Your task to perform on an android device: Open Google Chrome Image 0: 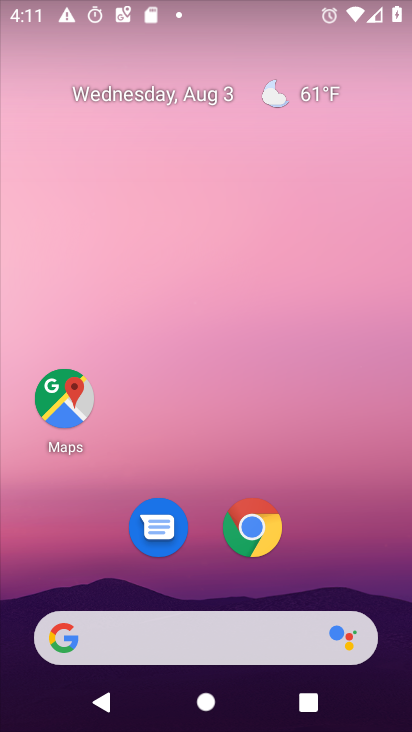
Step 0: drag from (359, 549) to (377, 91)
Your task to perform on an android device: Open Google Chrome Image 1: 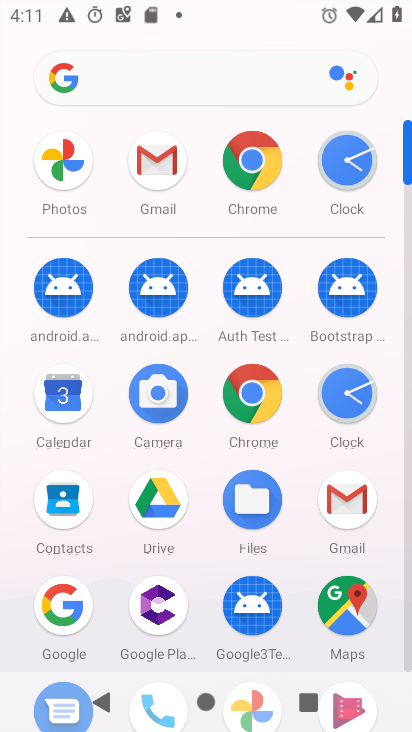
Step 1: click (248, 390)
Your task to perform on an android device: Open Google Chrome Image 2: 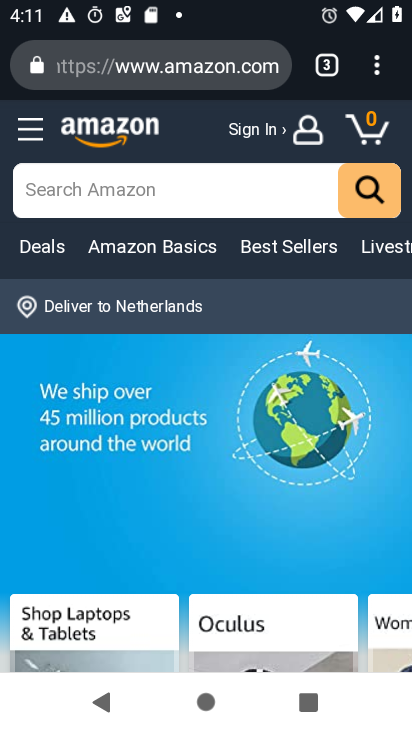
Step 2: task complete